Your task to perform on an android device: see tabs open on other devices in the chrome app Image 0: 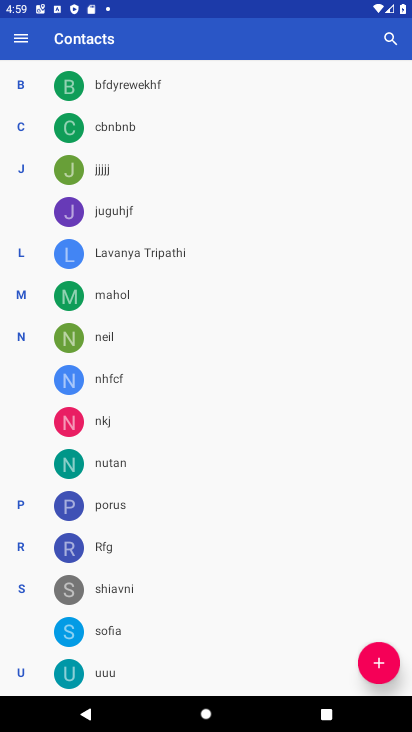
Step 0: press home button
Your task to perform on an android device: see tabs open on other devices in the chrome app Image 1: 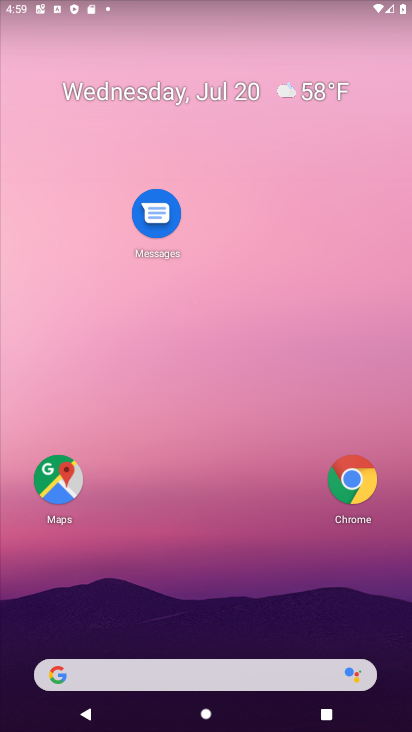
Step 1: click (359, 478)
Your task to perform on an android device: see tabs open on other devices in the chrome app Image 2: 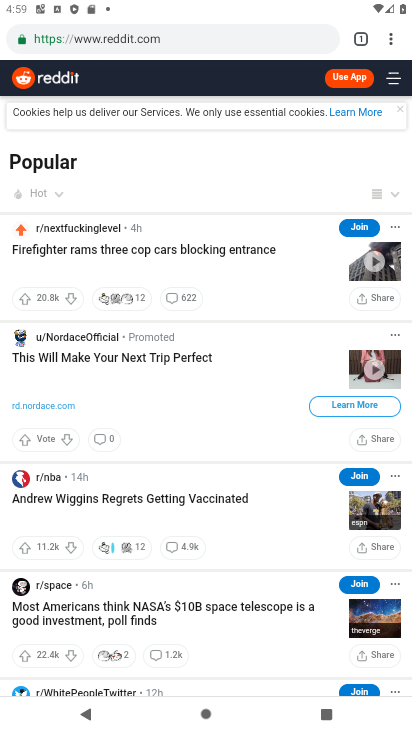
Step 2: click (391, 38)
Your task to perform on an android device: see tabs open on other devices in the chrome app Image 3: 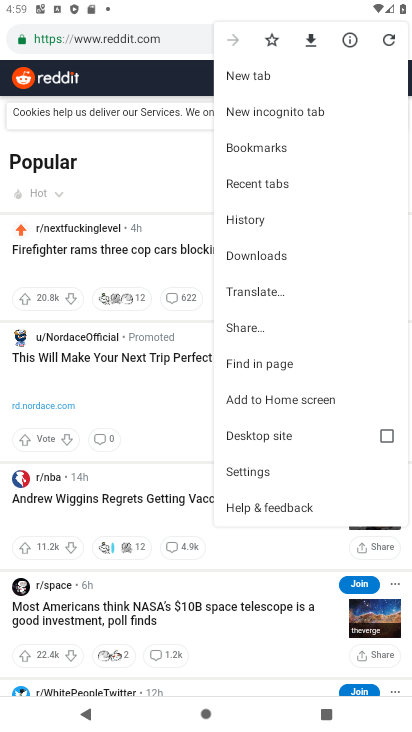
Step 3: click (245, 182)
Your task to perform on an android device: see tabs open on other devices in the chrome app Image 4: 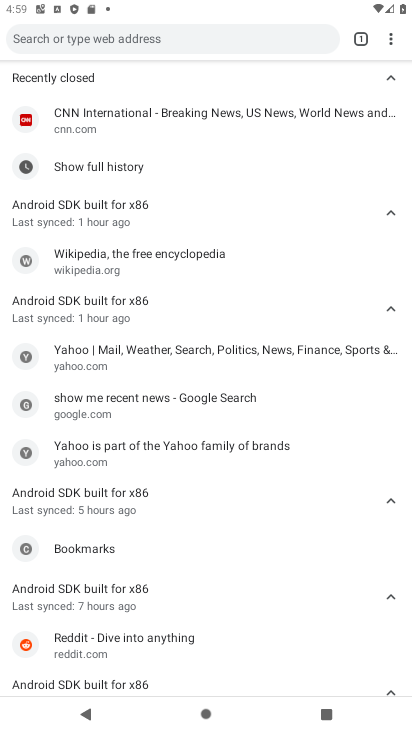
Step 4: task complete